Your task to perform on an android device: Show me productivity apps on the Play Store Image 0: 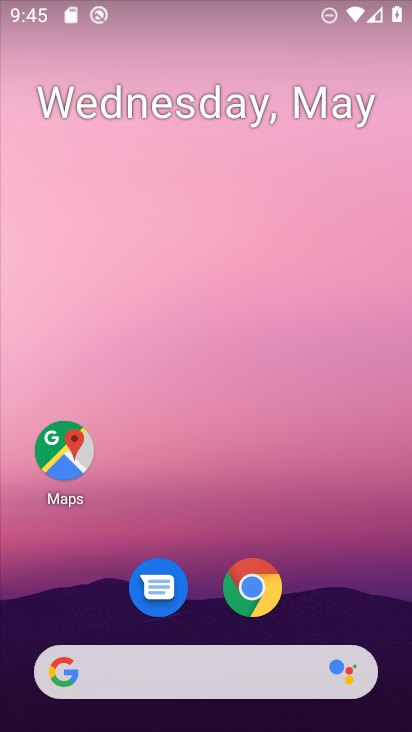
Step 0: drag from (212, 726) to (215, 127)
Your task to perform on an android device: Show me productivity apps on the Play Store Image 1: 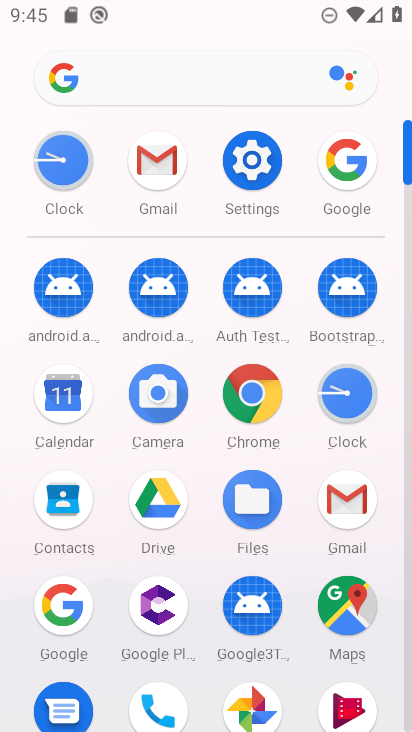
Step 1: drag from (206, 676) to (191, 267)
Your task to perform on an android device: Show me productivity apps on the Play Store Image 2: 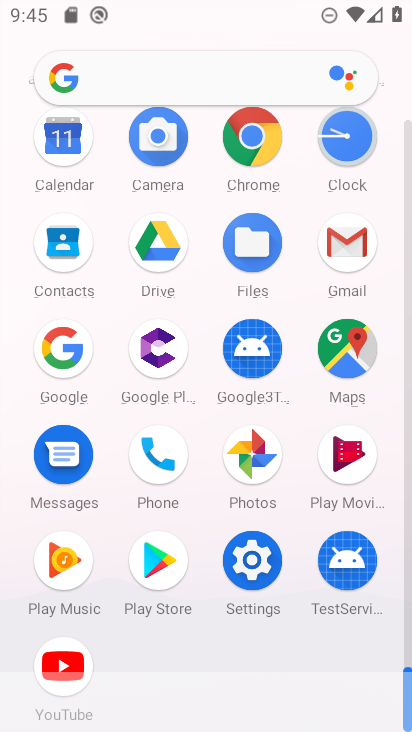
Step 2: click (151, 565)
Your task to perform on an android device: Show me productivity apps on the Play Store Image 3: 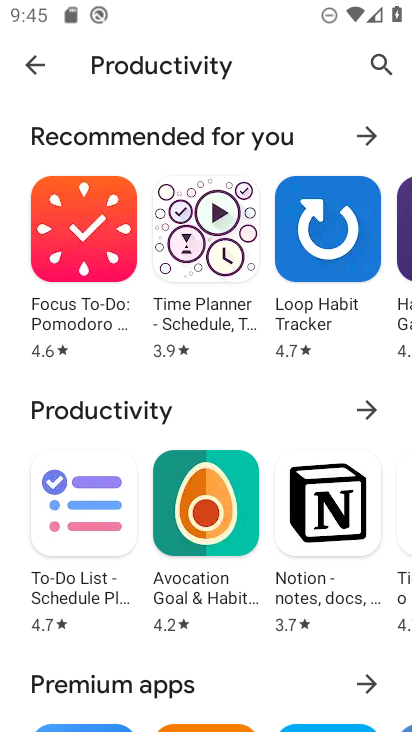
Step 3: task complete